Your task to perform on an android device: check out phone information Image 0: 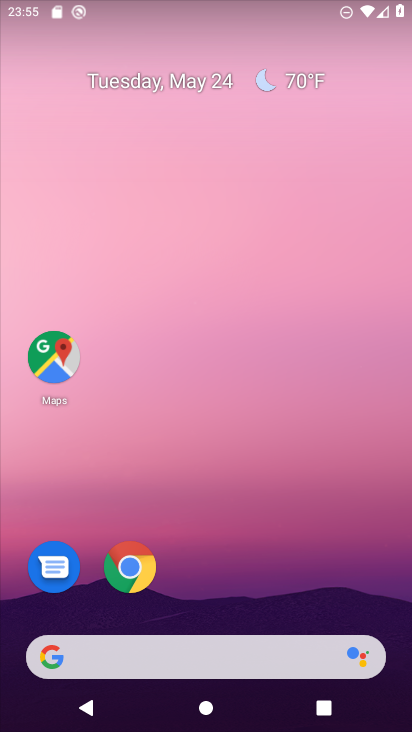
Step 0: drag from (274, 368) to (228, 2)
Your task to perform on an android device: check out phone information Image 1: 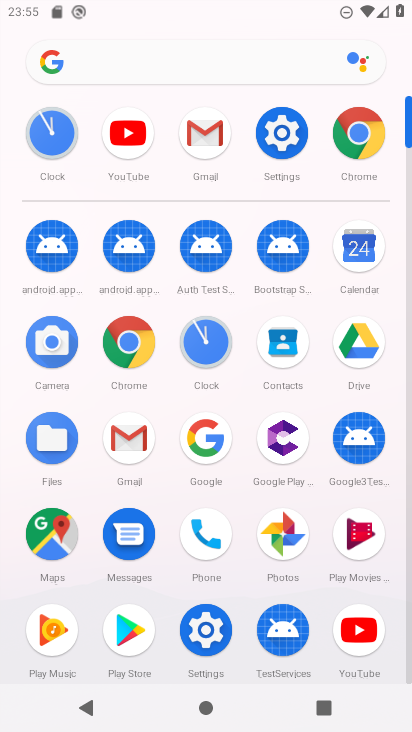
Step 1: click (283, 150)
Your task to perform on an android device: check out phone information Image 2: 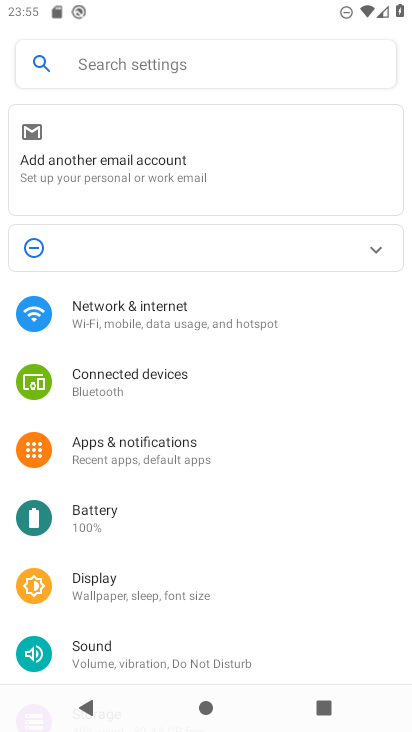
Step 2: drag from (260, 616) to (239, 27)
Your task to perform on an android device: check out phone information Image 3: 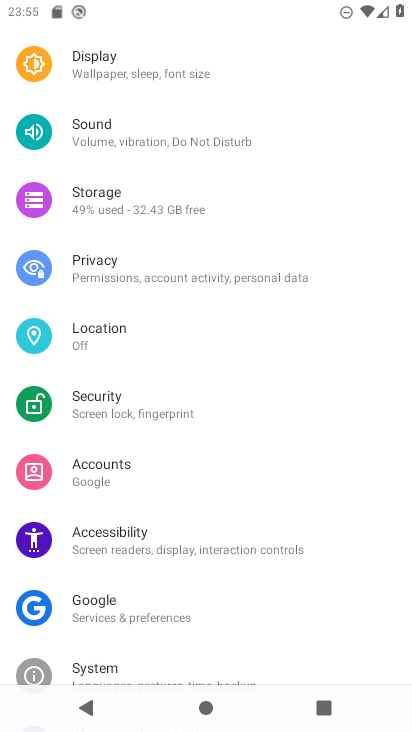
Step 3: drag from (246, 584) to (217, 90)
Your task to perform on an android device: check out phone information Image 4: 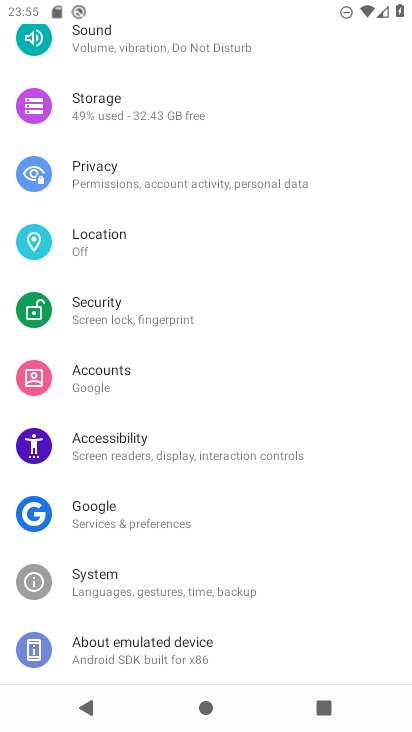
Step 4: click (169, 644)
Your task to perform on an android device: check out phone information Image 5: 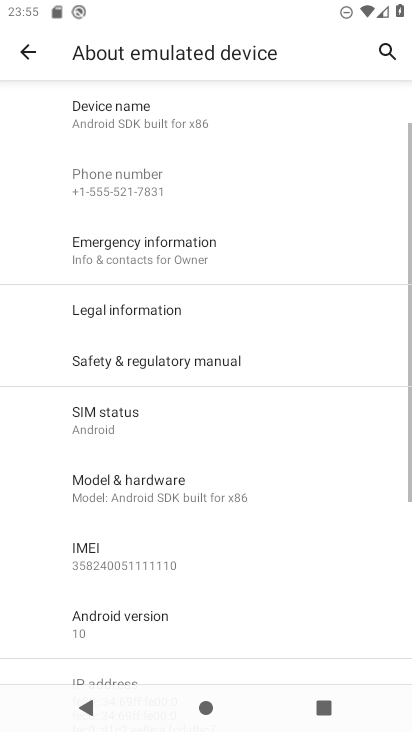
Step 5: task complete